Your task to perform on an android device: show emergency info Image 0: 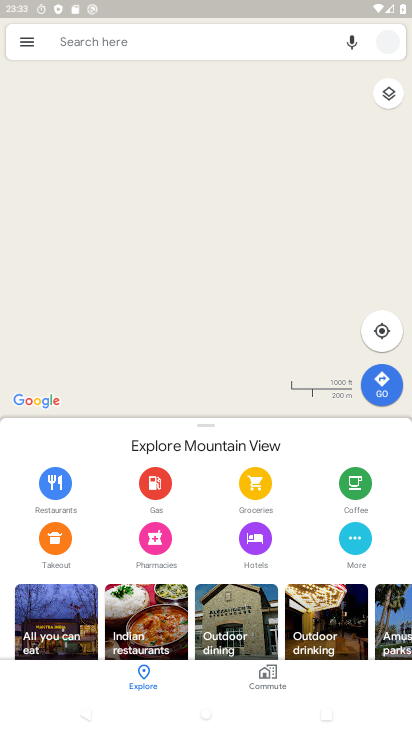
Step 0: press home button
Your task to perform on an android device: show emergency info Image 1: 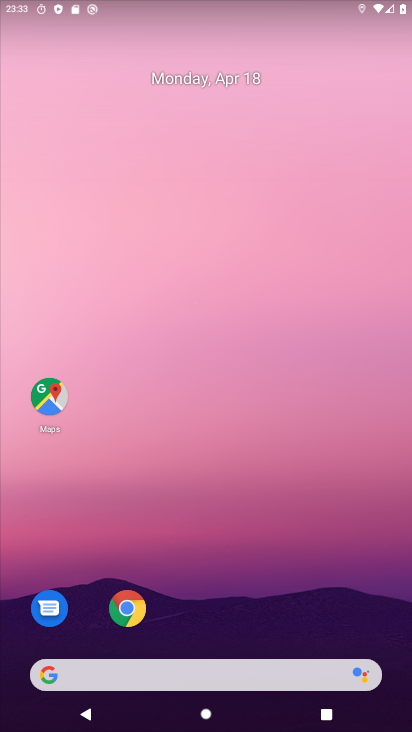
Step 1: drag from (258, 509) to (297, 50)
Your task to perform on an android device: show emergency info Image 2: 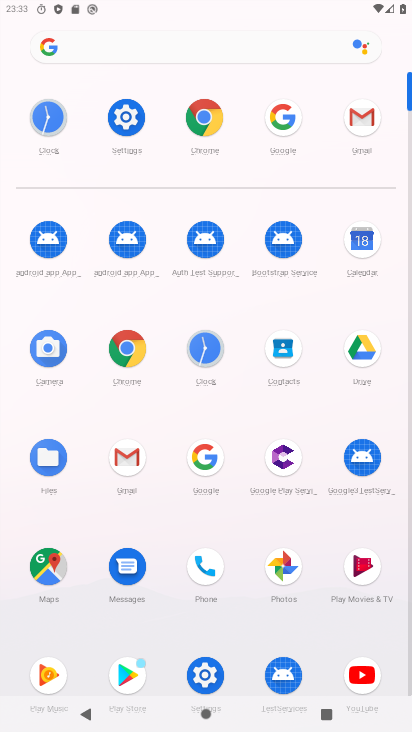
Step 2: click (128, 124)
Your task to perform on an android device: show emergency info Image 3: 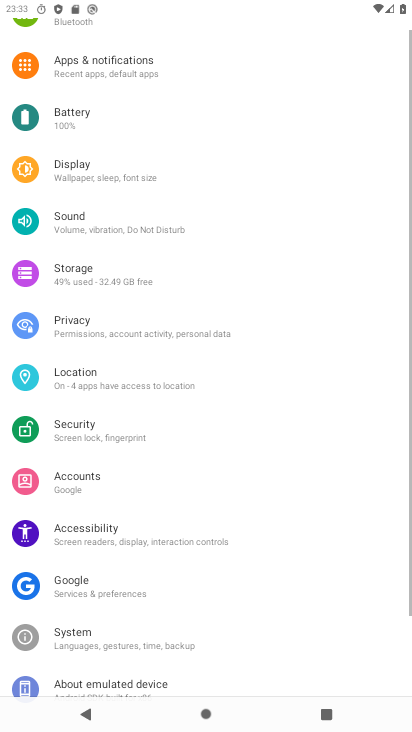
Step 3: drag from (229, 580) to (260, 104)
Your task to perform on an android device: show emergency info Image 4: 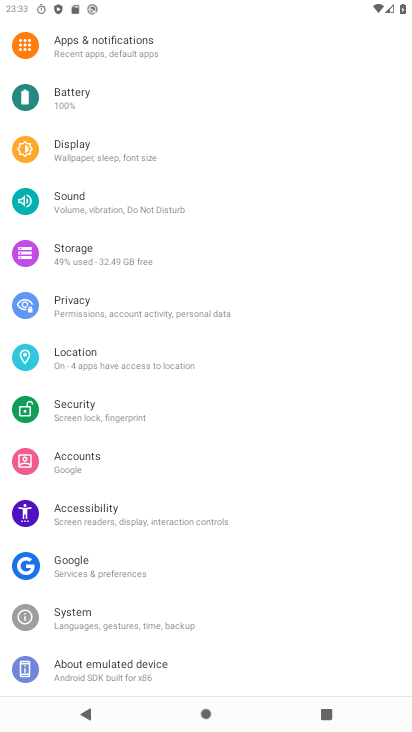
Step 4: click (98, 669)
Your task to perform on an android device: show emergency info Image 5: 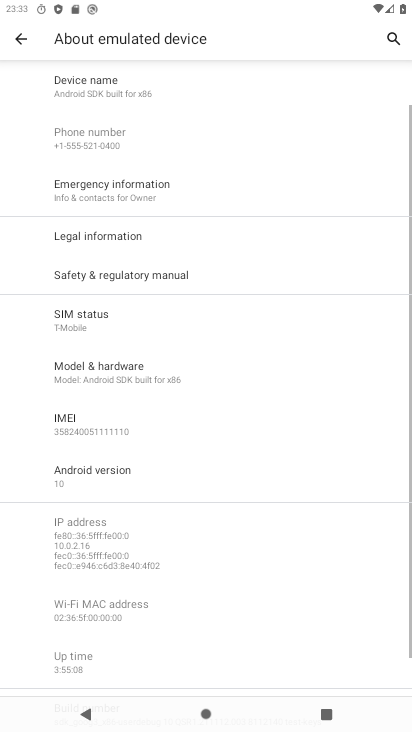
Step 5: click (101, 180)
Your task to perform on an android device: show emergency info Image 6: 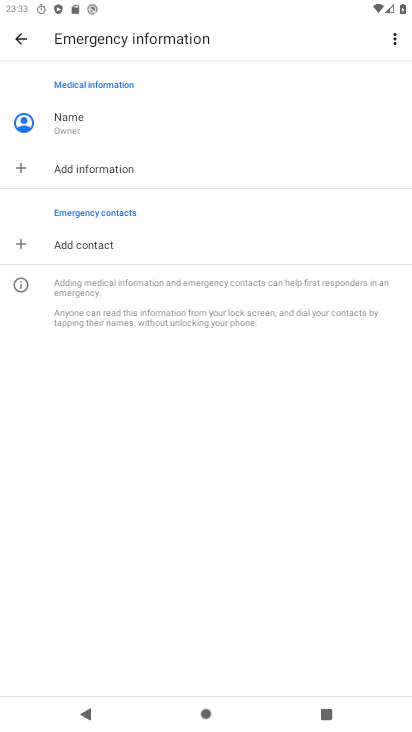
Step 6: task complete